Your task to perform on an android device: find which apps use the phone's location Image 0: 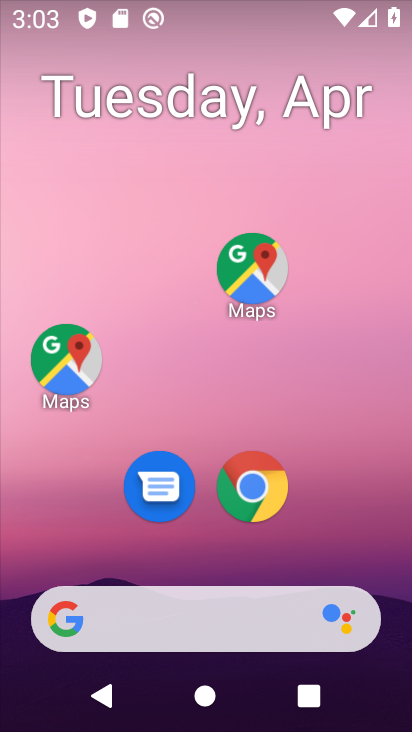
Step 0: click (305, 160)
Your task to perform on an android device: find which apps use the phone's location Image 1: 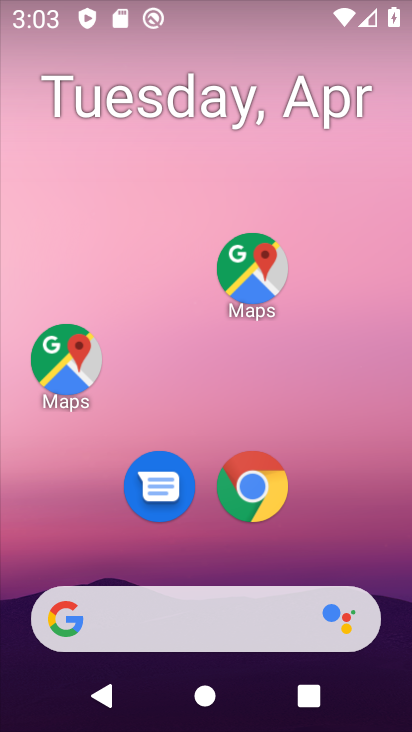
Step 1: drag from (275, 571) to (328, 102)
Your task to perform on an android device: find which apps use the phone's location Image 2: 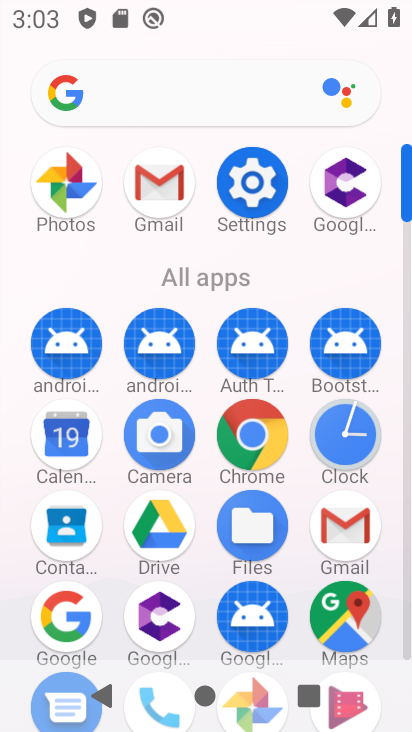
Step 2: click (248, 194)
Your task to perform on an android device: find which apps use the phone's location Image 3: 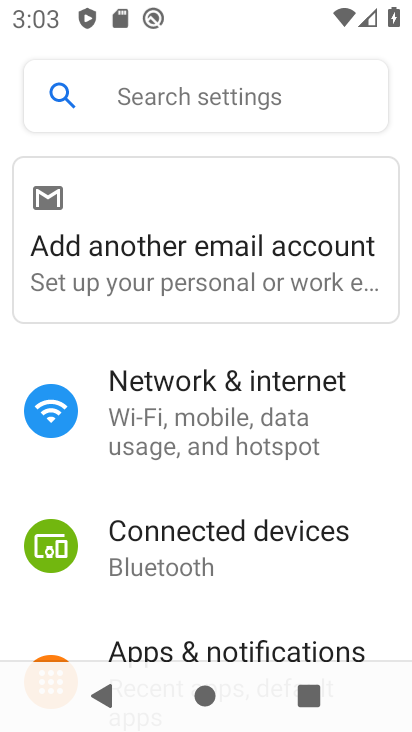
Step 3: drag from (208, 599) to (273, 267)
Your task to perform on an android device: find which apps use the phone's location Image 4: 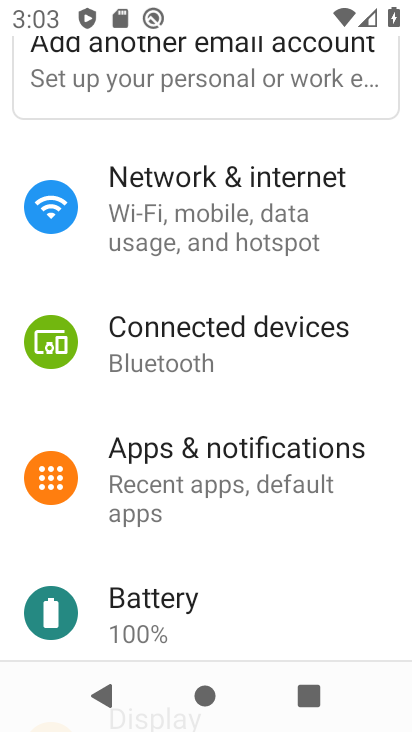
Step 4: drag from (218, 543) to (263, 241)
Your task to perform on an android device: find which apps use the phone's location Image 5: 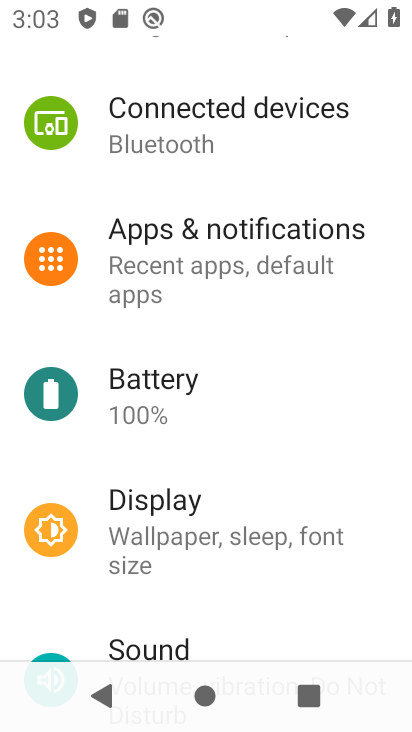
Step 5: drag from (230, 598) to (239, 260)
Your task to perform on an android device: find which apps use the phone's location Image 6: 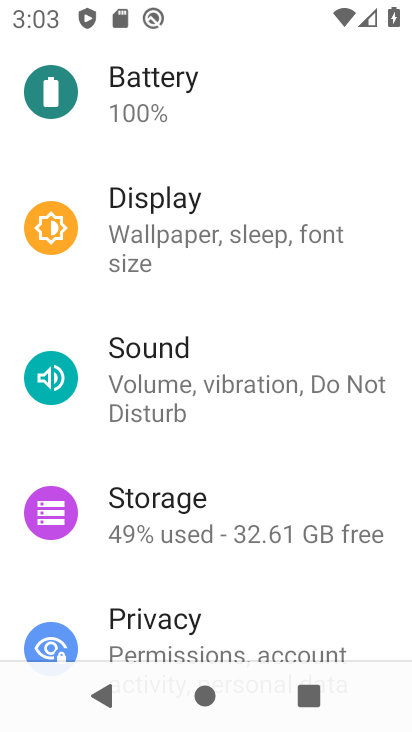
Step 6: drag from (262, 592) to (288, 170)
Your task to perform on an android device: find which apps use the phone's location Image 7: 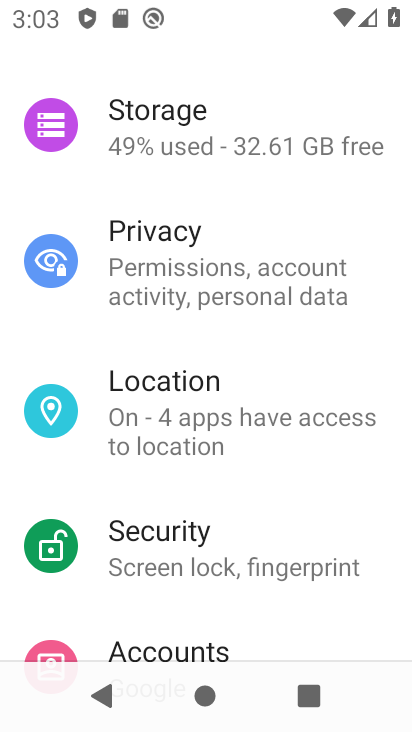
Step 7: click (252, 428)
Your task to perform on an android device: find which apps use the phone's location Image 8: 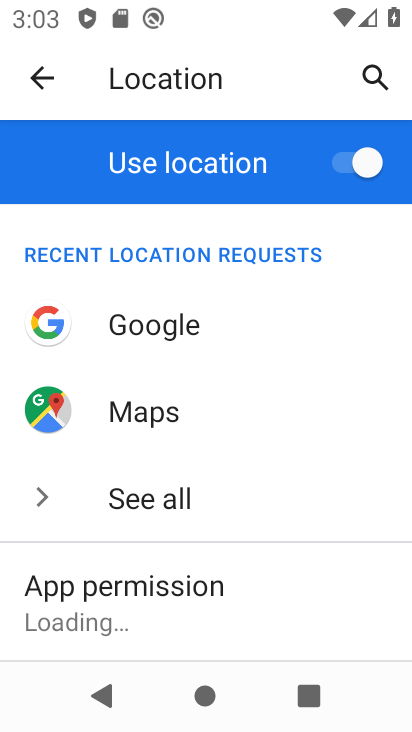
Step 8: click (197, 519)
Your task to perform on an android device: find which apps use the phone's location Image 9: 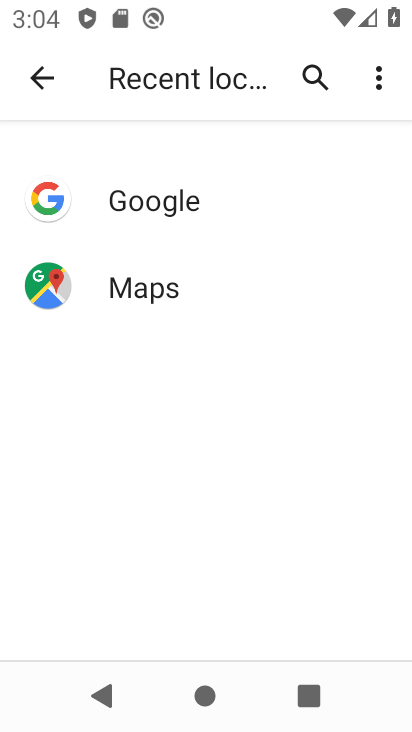
Step 9: click (61, 88)
Your task to perform on an android device: find which apps use the phone's location Image 10: 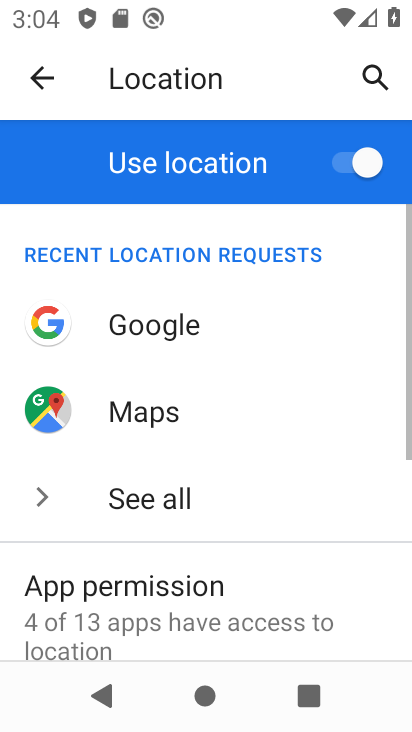
Step 10: drag from (193, 547) to (240, 284)
Your task to perform on an android device: find which apps use the phone's location Image 11: 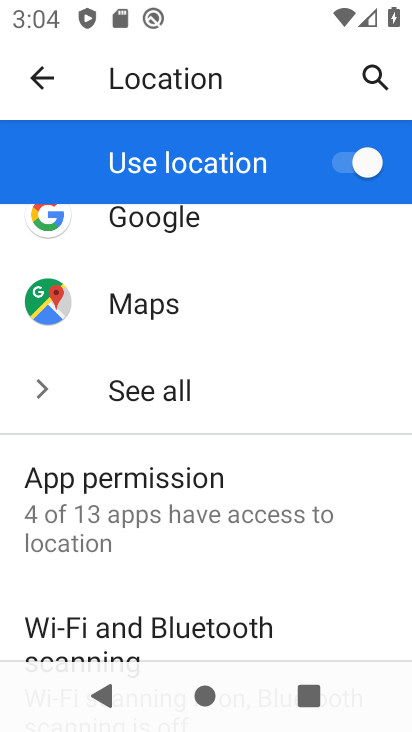
Step 11: click (235, 509)
Your task to perform on an android device: find which apps use the phone's location Image 12: 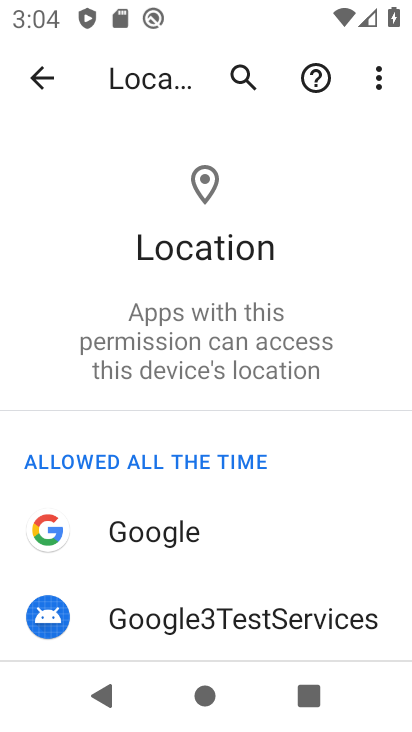
Step 12: task complete